Your task to perform on an android device: Search for sushi restaurants on Maps Image 0: 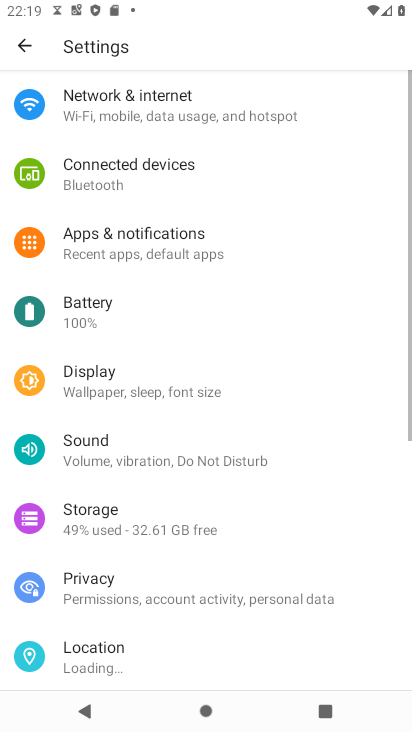
Step 0: press home button
Your task to perform on an android device: Search for sushi restaurants on Maps Image 1: 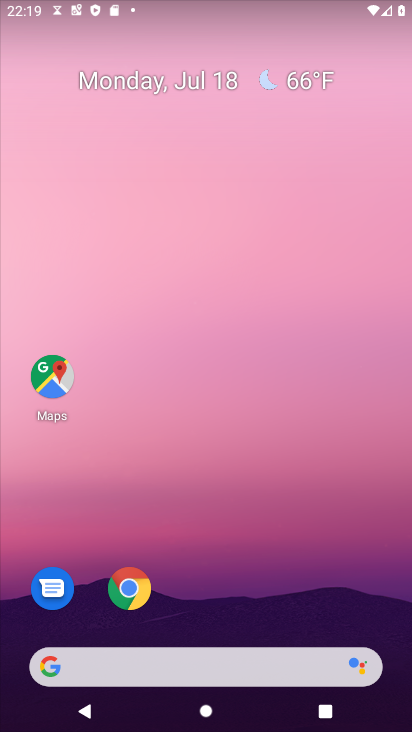
Step 1: click (64, 384)
Your task to perform on an android device: Search for sushi restaurants on Maps Image 2: 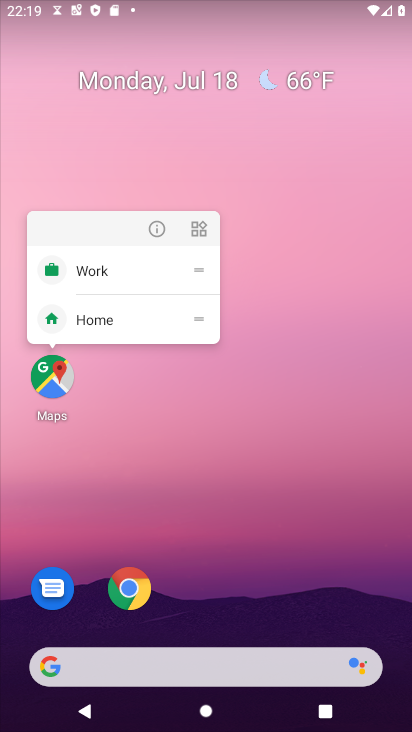
Step 2: click (54, 378)
Your task to perform on an android device: Search for sushi restaurants on Maps Image 3: 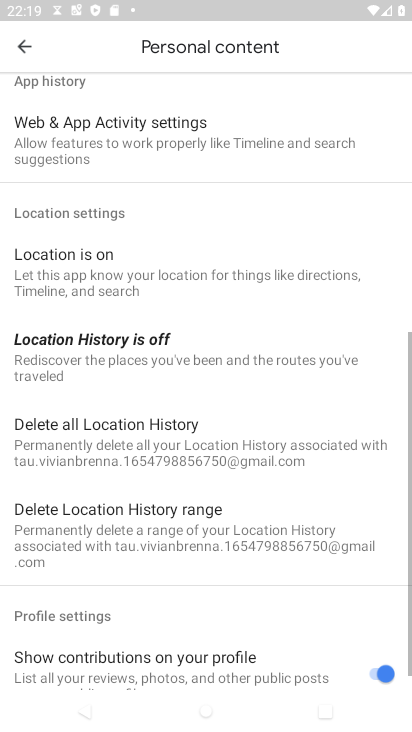
Step 3: click (19, 46)
Your task to perform on an android device: Search for sushi restaurants on Maps Image 4: 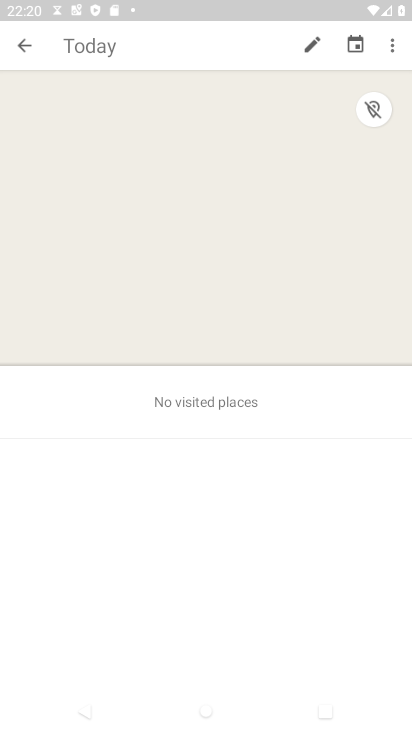
Step 4: click (28, 45)
Your task to perform on an android device: Search for sushi restaurants on Maps Image 5: 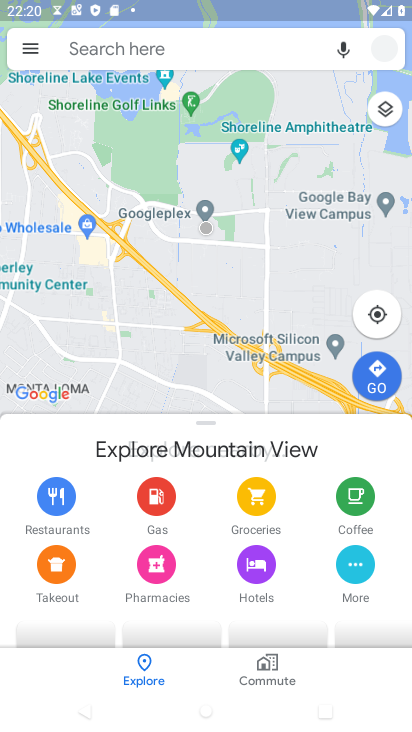
Step 5: click (163, 43)
Your task to perform on an android device: Search for sushi restaurants on Maps Image 6: 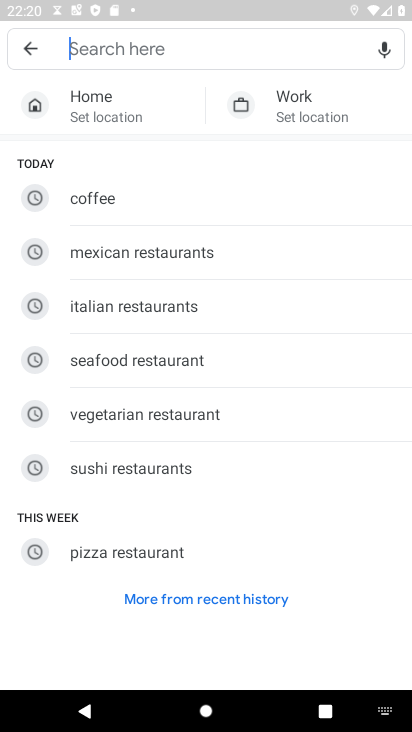
Step 6: click (135, 470)
Your task to perform on an android device: Search for sushi restaurants on Maps Image 7: 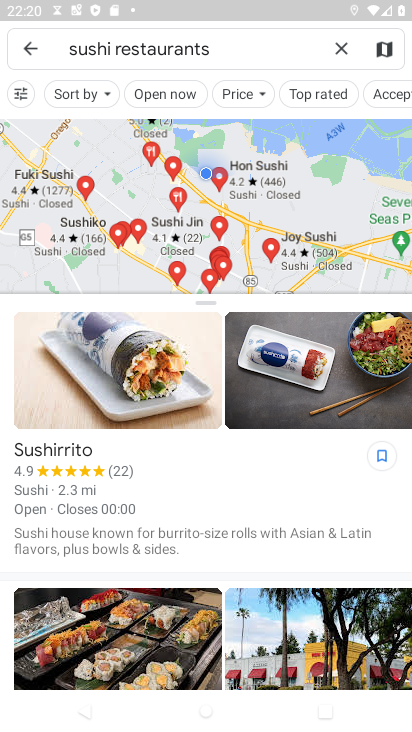
Step 7: task complete